Your task to perform on an android device: Search for a custom made wallet Image 0: 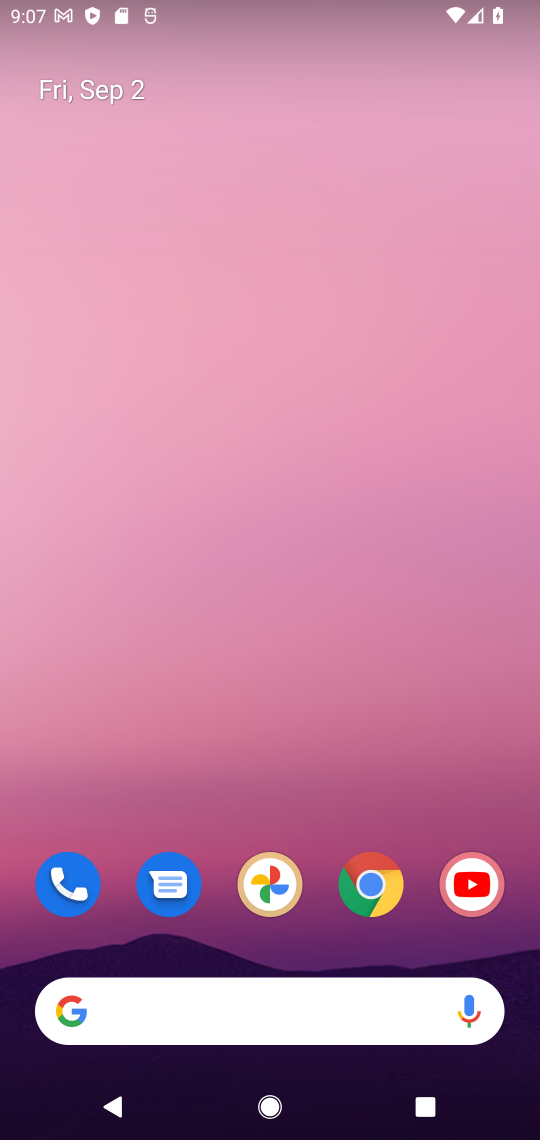
Step 0: click (371, 885)
Your task to perform on an android device: Search for a custom made wallet Image 1: 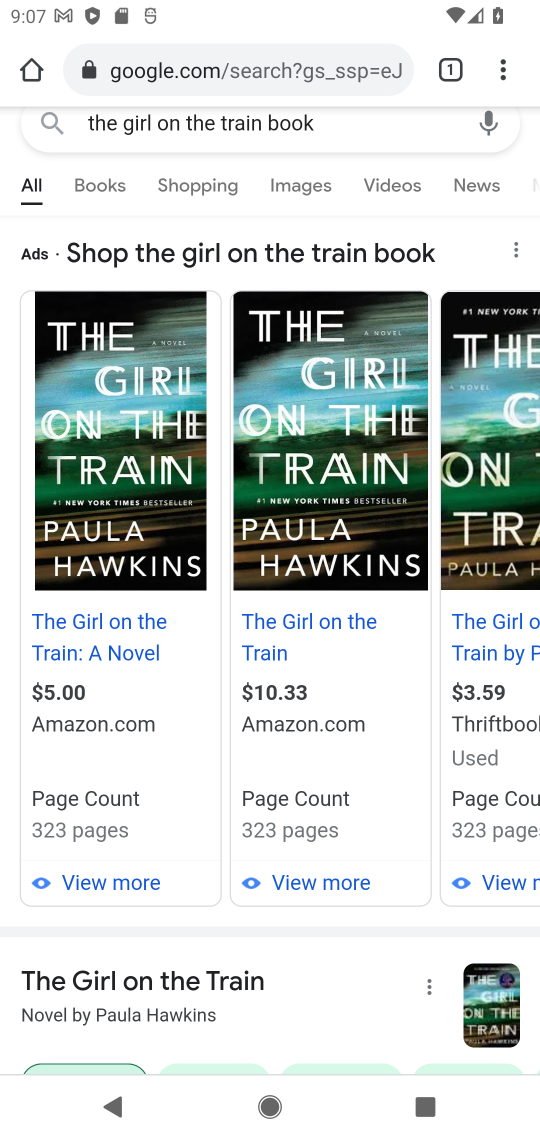
Step 1: click (319, 118)
Your task to perform on an android device: Search for a custom made wallet Image 2: 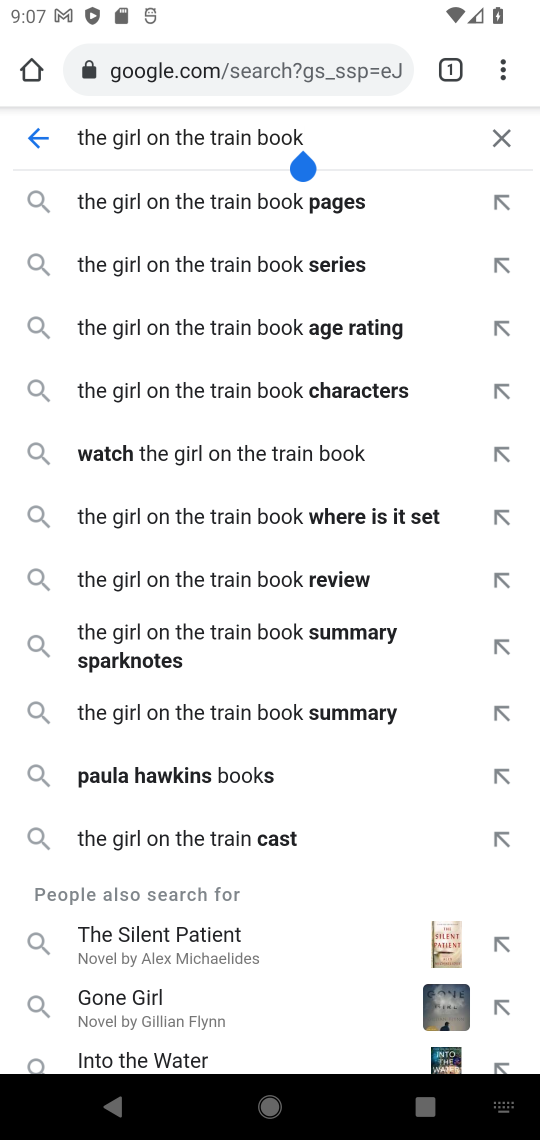
Step 2: click (500, 136)
Your task to perform on an android device: Search for a custom made wallet Image 3: 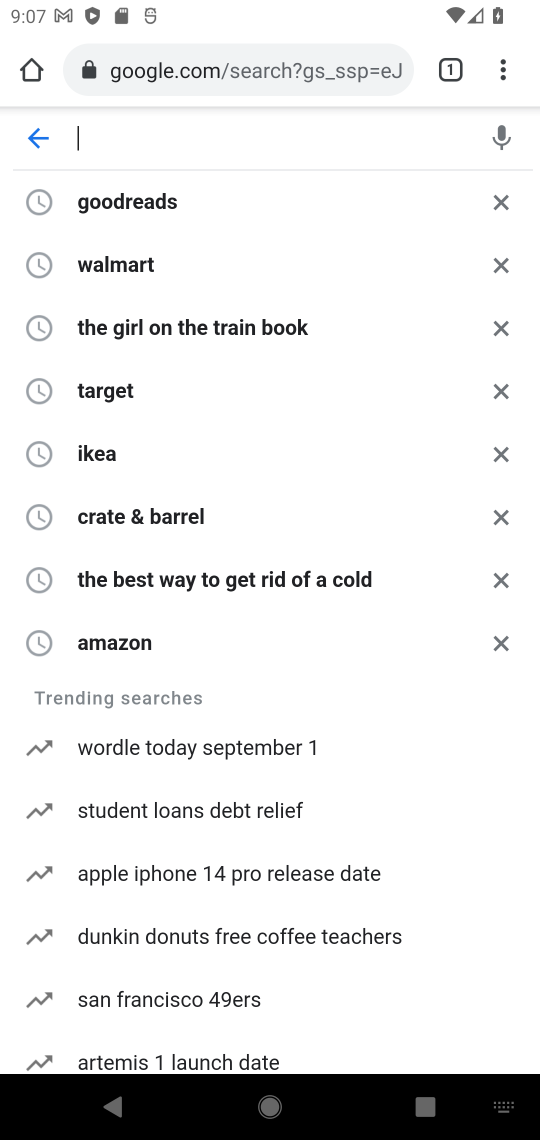
Step 3: type "custom made wallet"
Your task to perform on an android device: Search for a custom made wallet Image 4: 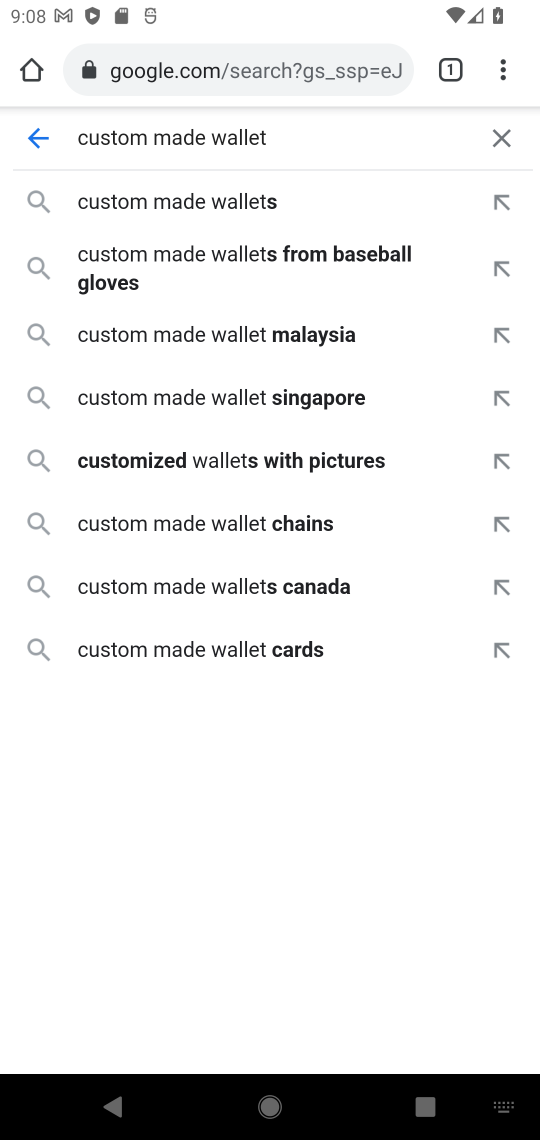
Step 4: click (187, 209)
Your task to perform on an android device: Search for a custom made wallet Image 5: 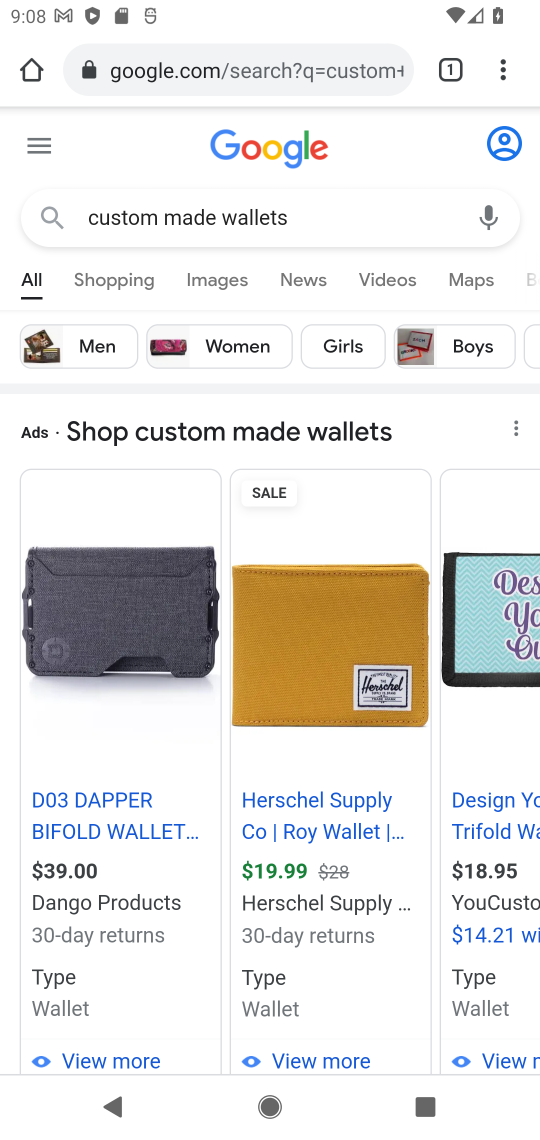
Step 5: task complete